Your task to perform on an android device: turn off smart reply in the gmail app Image 0: 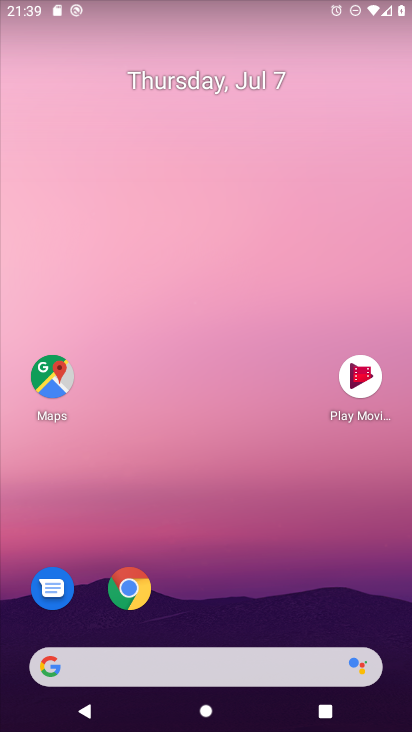
Step 0: drag from (230, 643) to (231, 229)
Your task to perform on an android device: turn off smart reply in the gmail app Image 1: 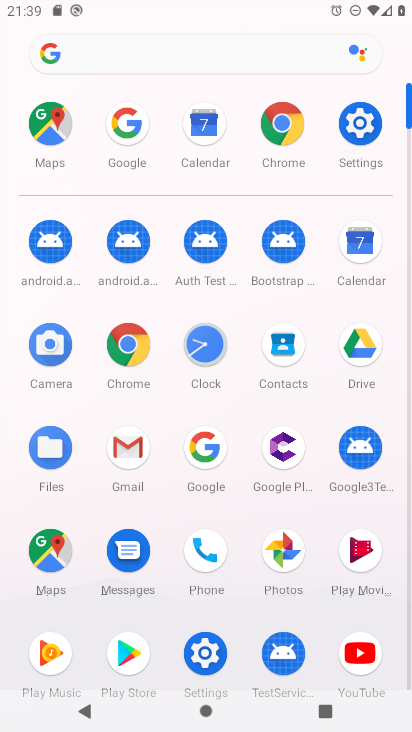
Step 1: click (130, 438)
Your task to perform on an android device: turn off smart reply in the gmail app Image 2: 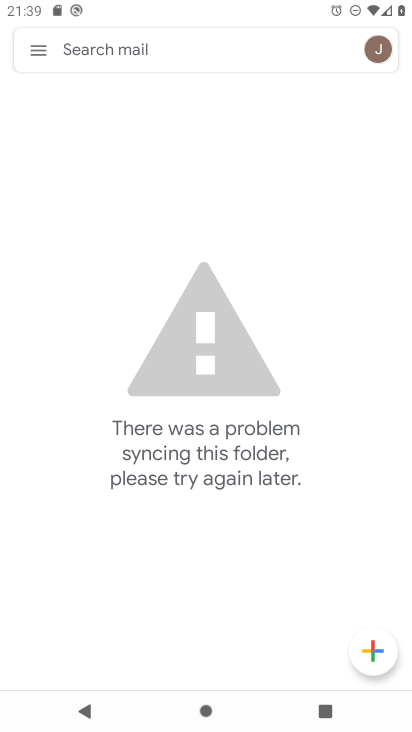
Step 2: click (37, 48)
Your task to perform on an android device: turn off smart reply in the gmail app Image 3: 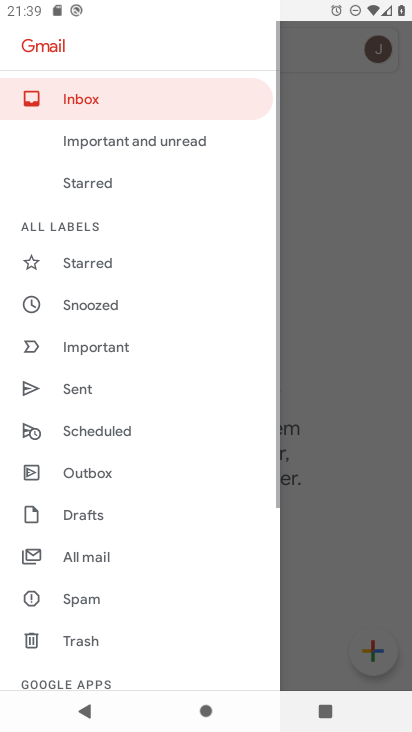
Step 3: drag from (120, 630) to (136, 230)
Your task to perform on an android device: turn off smart reply in the gmail app Image 4: 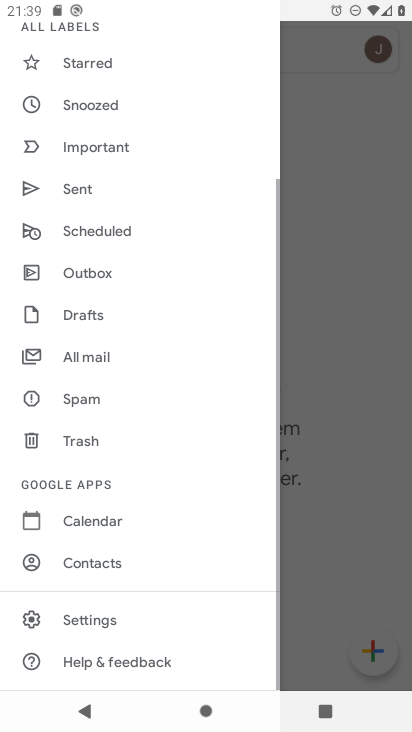
Step 4: click (108, 606)
Your task to perform on an android device: turn off smart reply in the gmail app Image 5: 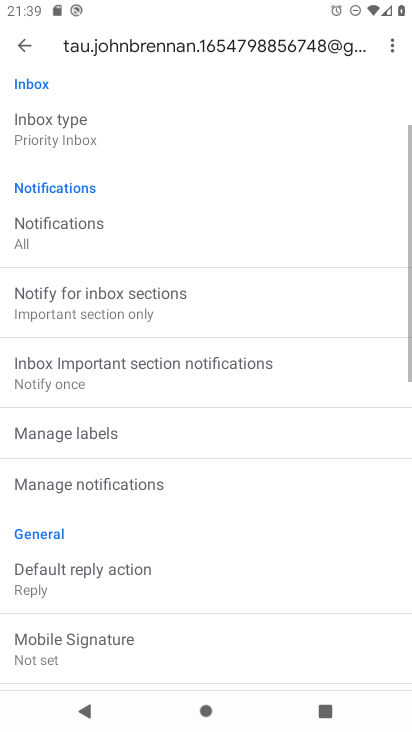
Step 5: task complete